Your task to perform on an android device: Open eBay Image 0: 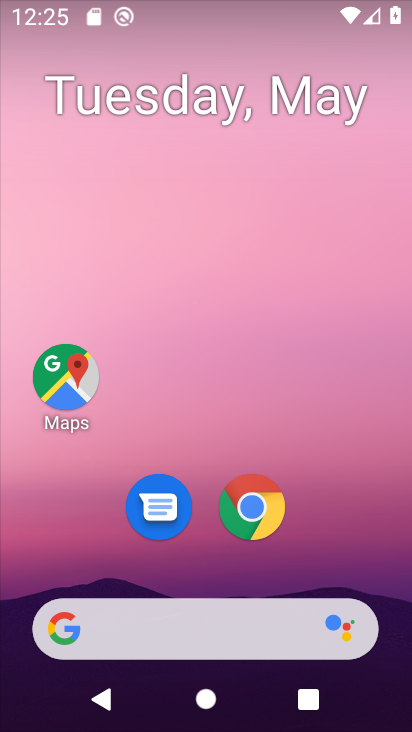
Step 0: drag from (237, 689) to (165, 166)
Your task to perform on an android device: Open eBay Image 1: 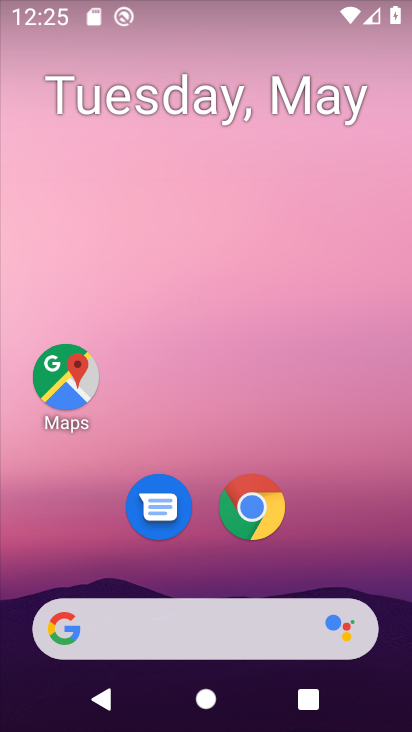
Step 1: drag from (212, 625) to (172, 130)
Your task to perform on an android device: Open eBay Image 2: 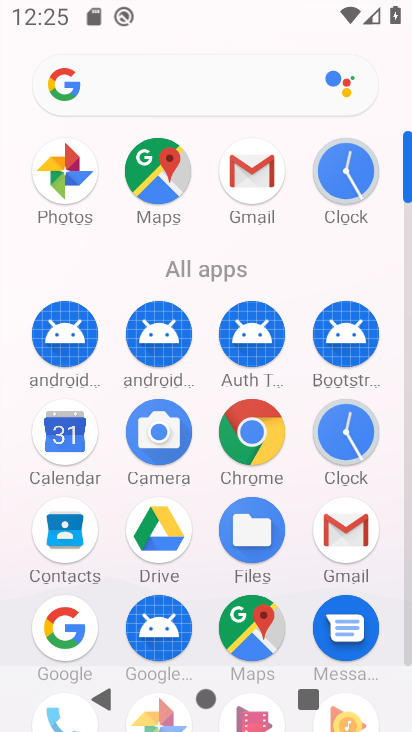
Step 2: drag from (266, 689) to (207, 179)
Your task to perform on an android device: Open eBay Image 3: 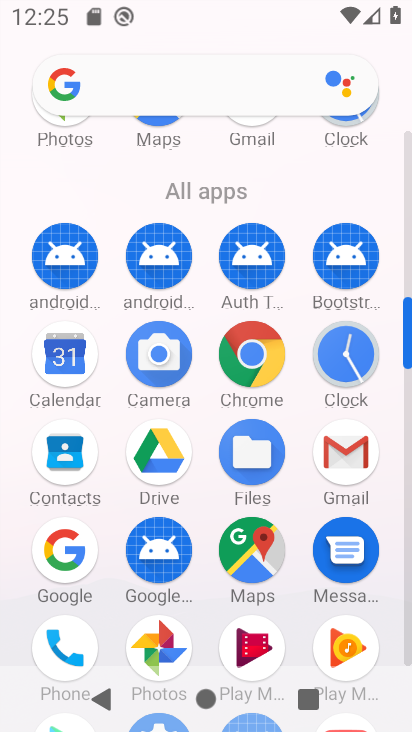
Step 3: click (252, 353)
Your task to perform on an android device: Open eBay Image 4: 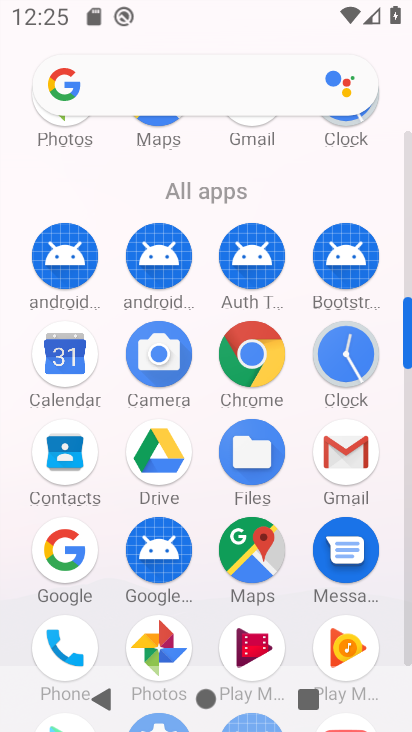
Step 4: click (257, 355)
Your task to perform on an android device: Open eBay Image 5: 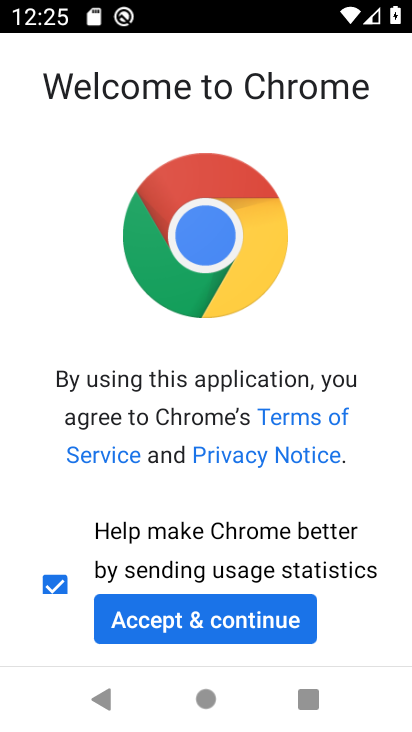
Step 5: click (213, 621)
Your task to perform on an android device: Open eBay Image 6: 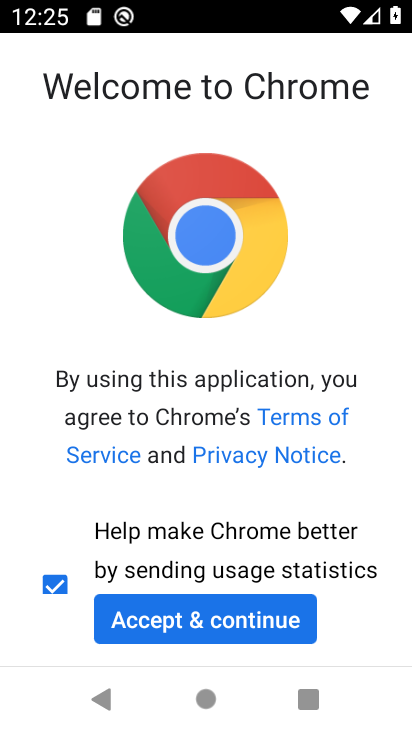
Step 6: click (207, 620)
Your task to perform on an android device: Open eBay Image 7: 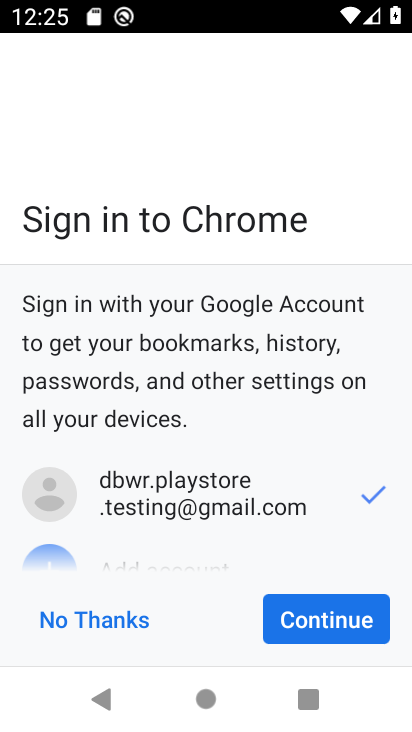
Step 7: click (323, 616)
Your task to perform on an android device: Open eBay Image 8: 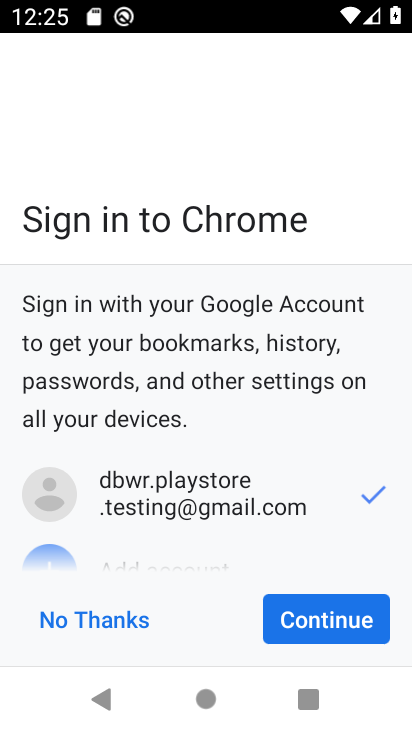
Step 8: click (324, 615)
Your task to perform on an android device: Open eBay Image 9: 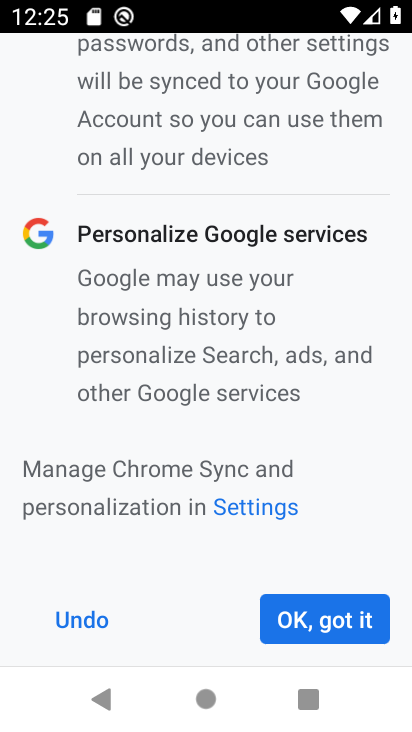
Step 9: click (331, 619)
Your task to perform on an android device: Open eBay Image 10: 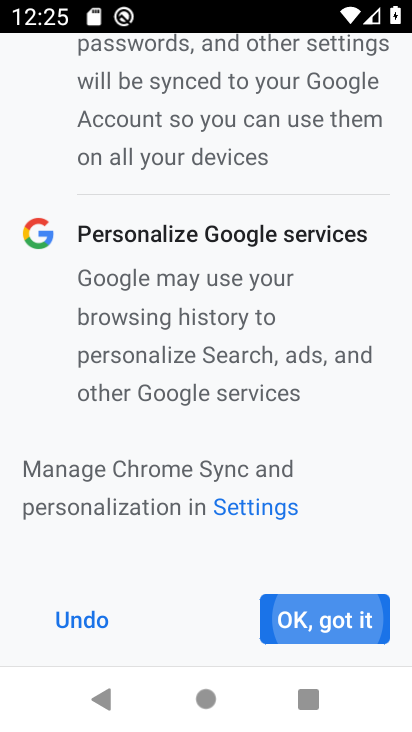
Step 10: click (332, 622)
Your task to perform on an android device: Open eBay Image 11: 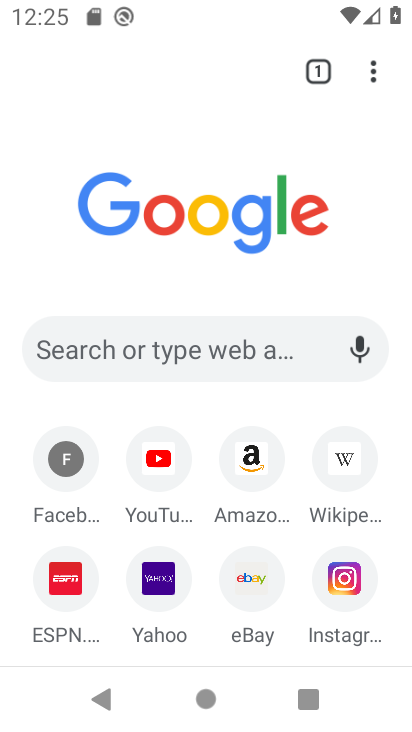
Step 11: click (269, 585)
Your task to perform on an android device: Open eBay Image 12: 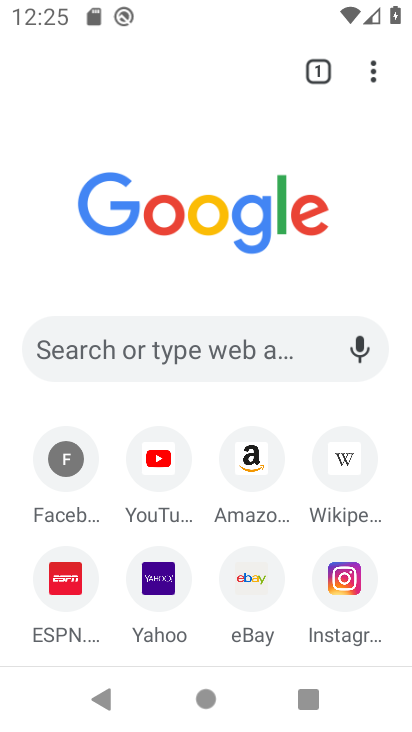
Step 12: click (258, 578)
Your task to perform on an android device: Open eBay Image 13: 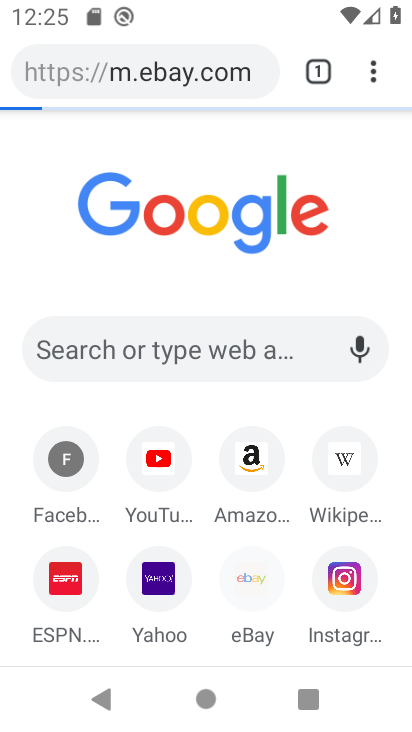
Step 13: click (256, 581)
Your task to perform on an android device: Open eBay Image 14: 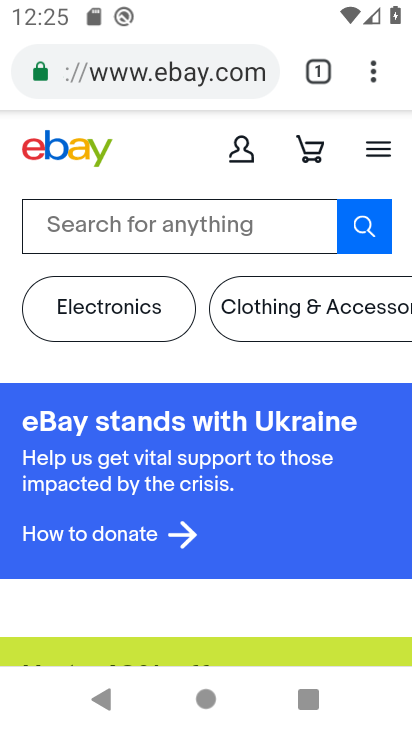
Step 14: task complete